Your task to perform on an android device: See recent photos Image 0: 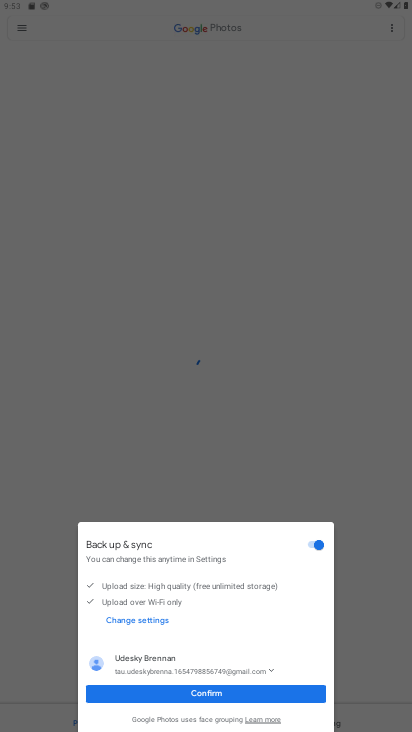
Step 0: click (241, 694)
Your task to perform on an android device: See recent photos Image 1: 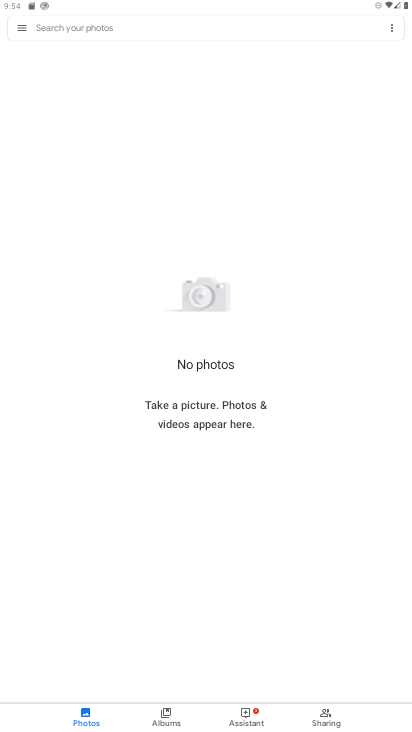
Step 1: task complete